Your task to perform on an android device: open a new tab in the chrome app Image 0: 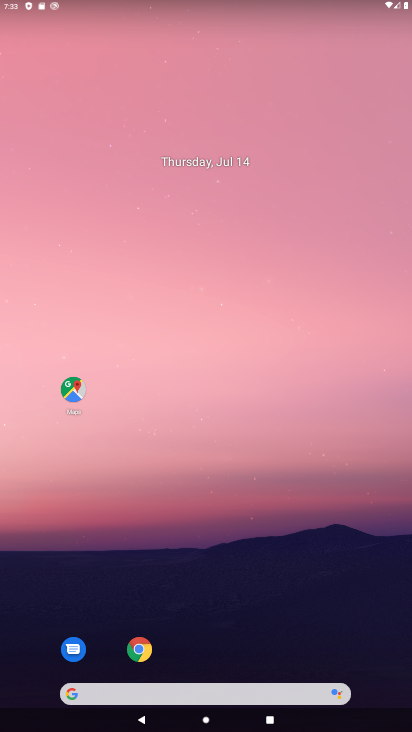
Step 0: click (138, 651)
Your task to perform on an android device: open a new tab in the chrome app Image 1: 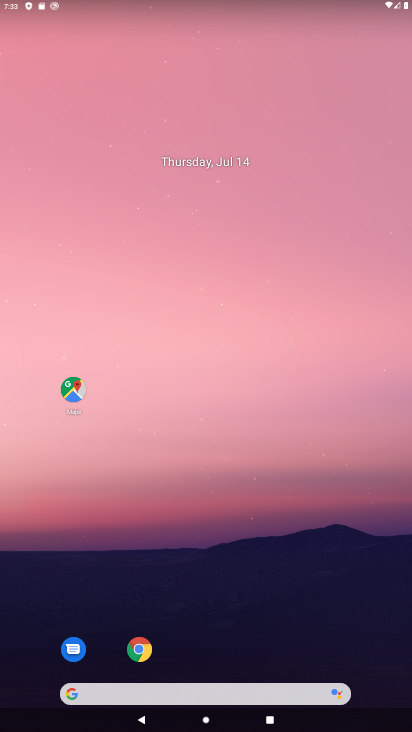
Step 1: click (138, 651)
Your task to perform on an android device: open a new tab in the chrome app Image 2: 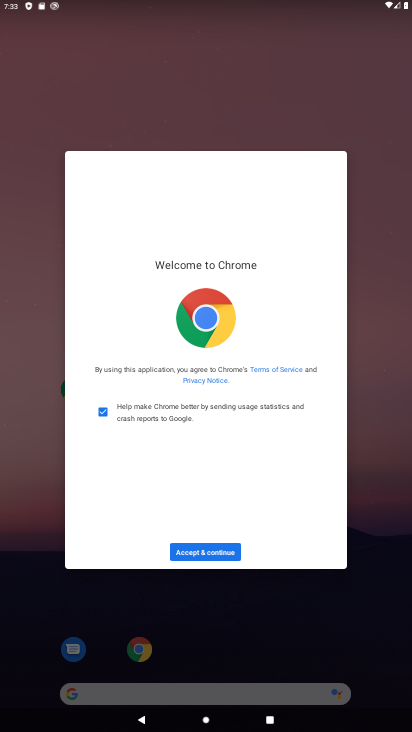
Step 2: click (198, 560)
Your task to perform on an android device: open a new tab in the chrome app Image 3: 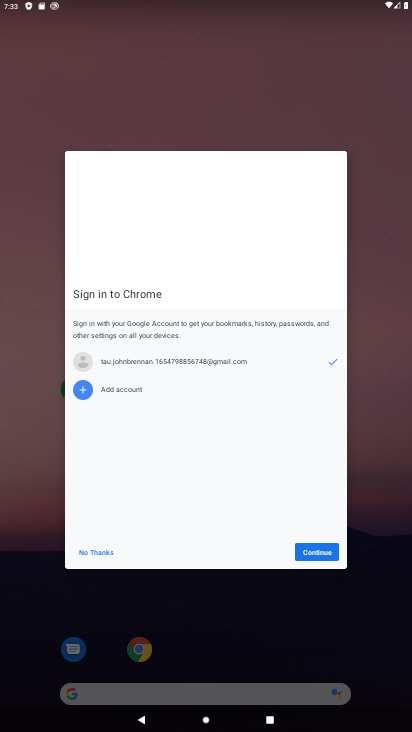
Step 3: click (311, 554)
Your task to perform on an android device: open a new tab in the chrome app Image 4: 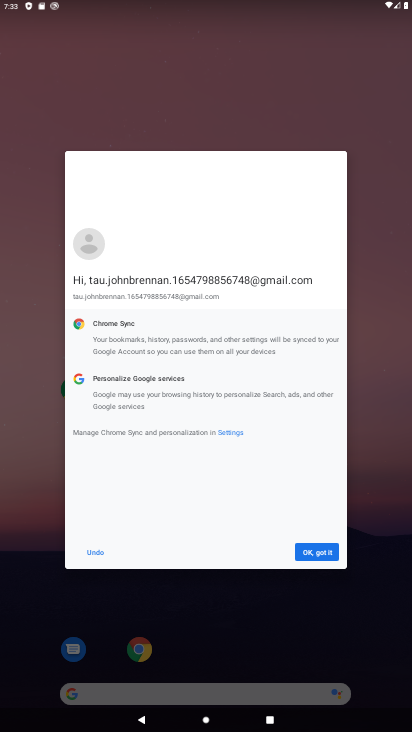
Step 4: click (311, 554)
Your task to perform on an android device: open a new tab in the chrome app Image 5: 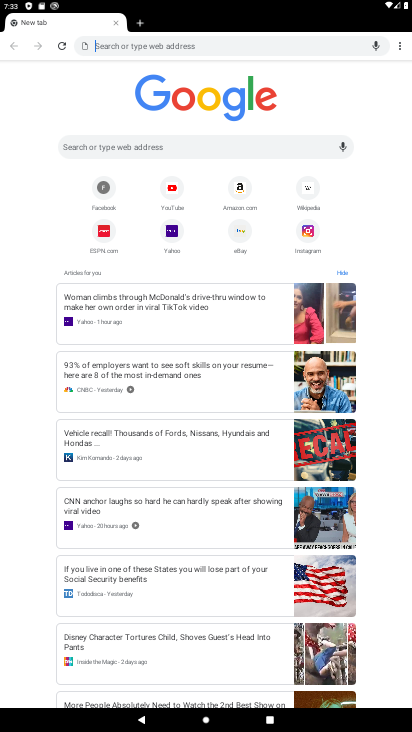
Step 5: click (394, 44)
Your task to perform on an android device: open a new tab in the chrome app Image 6: 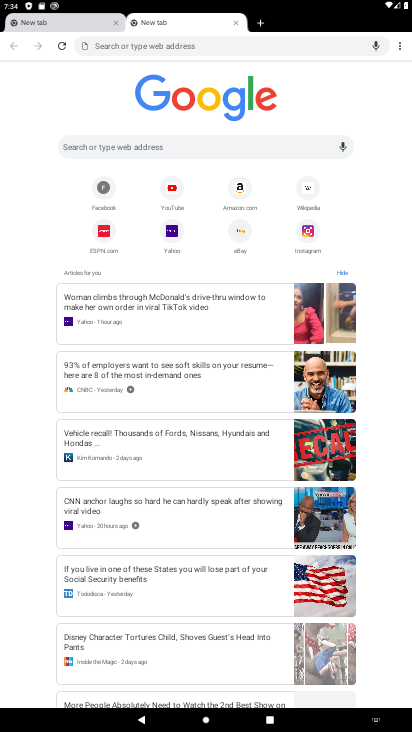
Step 6: click (402, 44)
Your task to perform on an android device: open a new tab in the chrome app Image 7: 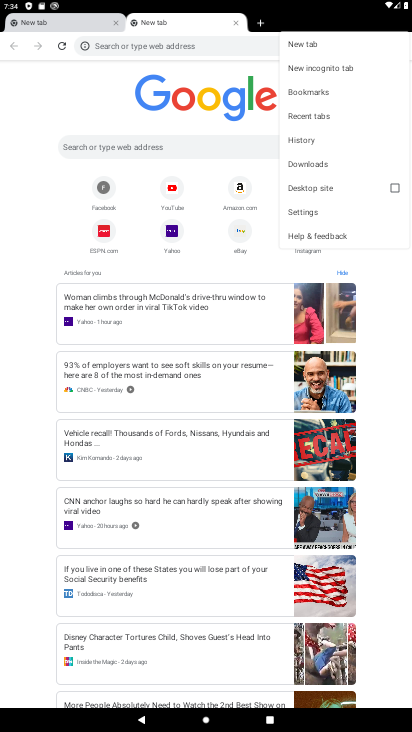
Step 7: click (325, 50)
Your task to perform on an android device: open a new tab in the chrome app Image 8: 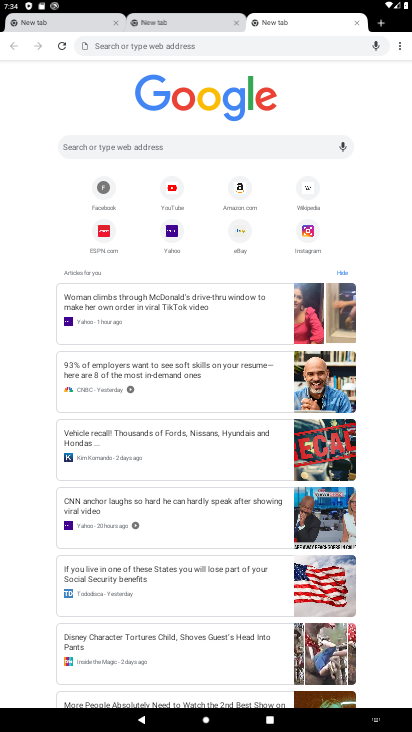
Step 8: task complete